Your task to perform on an android device: Find coffee shops on Maps Image 0: 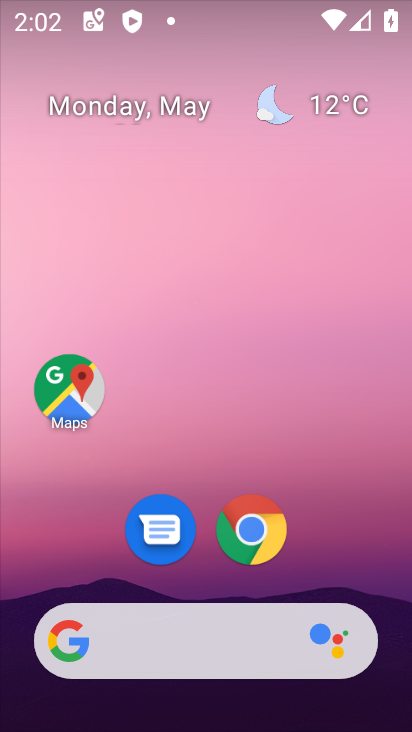
Step 0: click (70, 385)
Your task to perform on an android device: Find coffee shops on Maps Image 1: 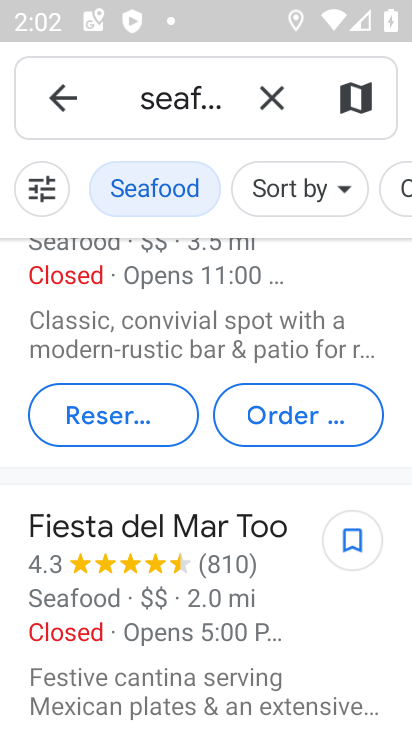
Step 1: click (274, 93)
Your task to perform on an android device: Find coffee shops on Maps Image 2: 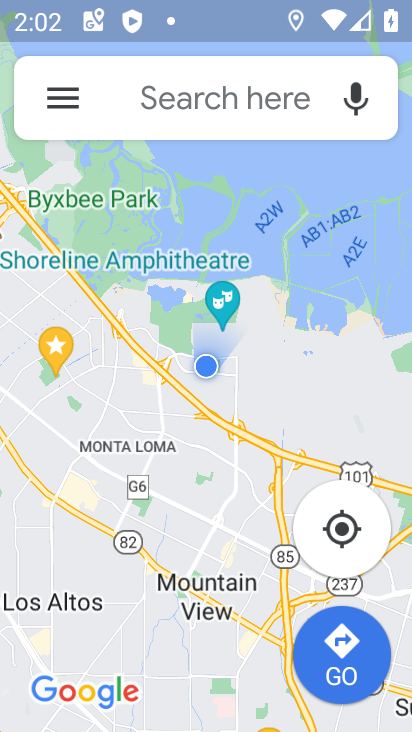
Step 2: click (181, 103)
Your task to perform on an android device: Find coffee shops on Maps Image 3: 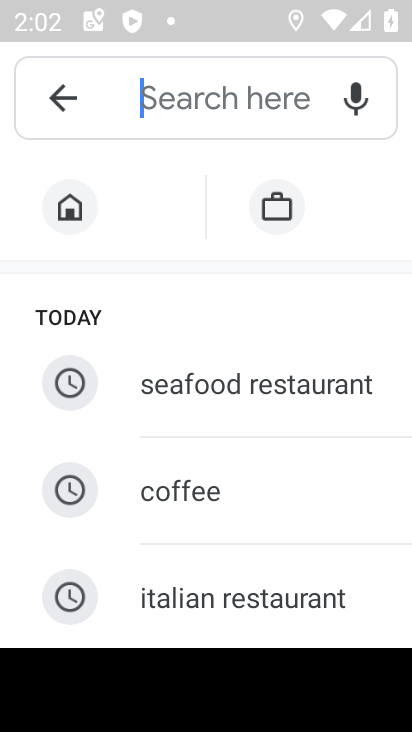
Step 3: type "coffee shop"
Your task to perform on an android device: Find coffee shops on Maps Image 4: 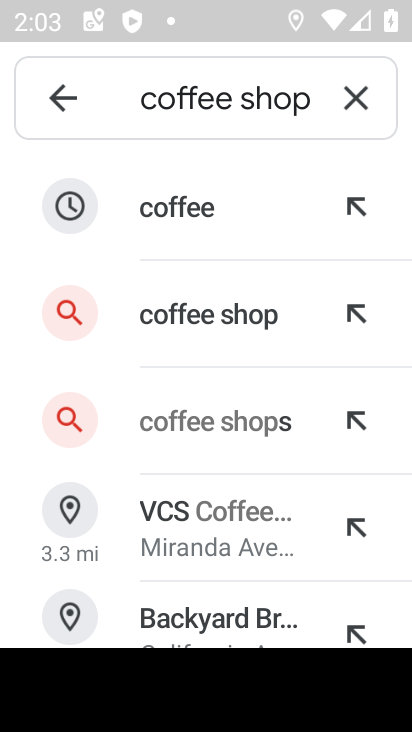
Step 4: click (200, 322)
Your task to perform on an android device: Find coffee shops on Maps Image 5: 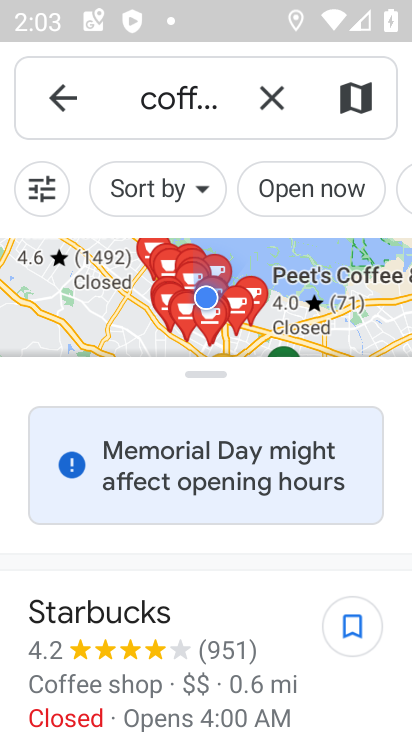
Step 5: task complete